Your task to perform on an android device: Open Youtube and go to the subscriptions tab Image 0: 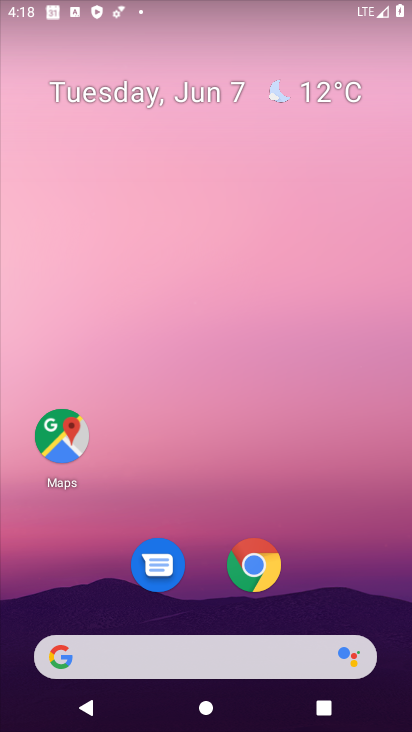
Step 0: drag from (307, 504) to (269, 56)
Your task to perform on an android device: Open Youtube and go to the subscriptions tab Image 1: 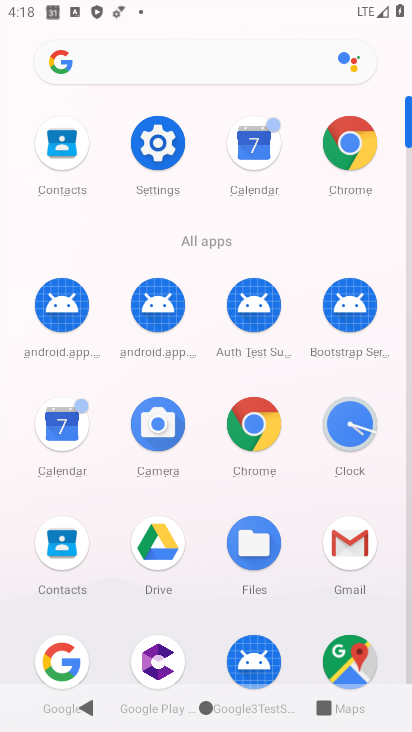
Step 1: drag from (310, 588) to (252, 141)
Your task to perform on an android device: Open Youtube and go to the subscriptions tab Image 2: 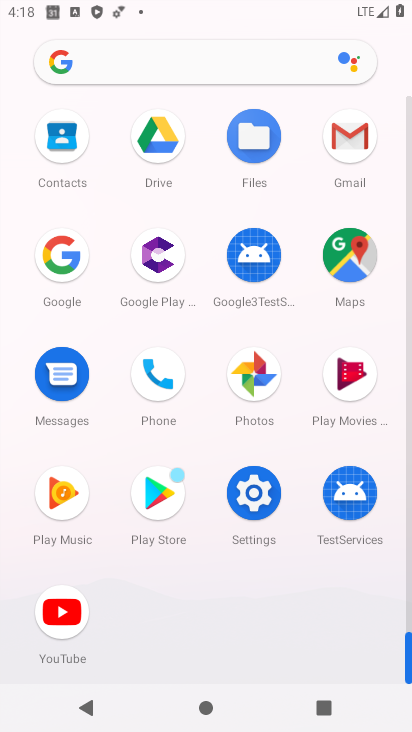
Step 2: click (65, 618)
Your task to perform on an android device: Open Youtube and go to the subscriptions tab Image 3: 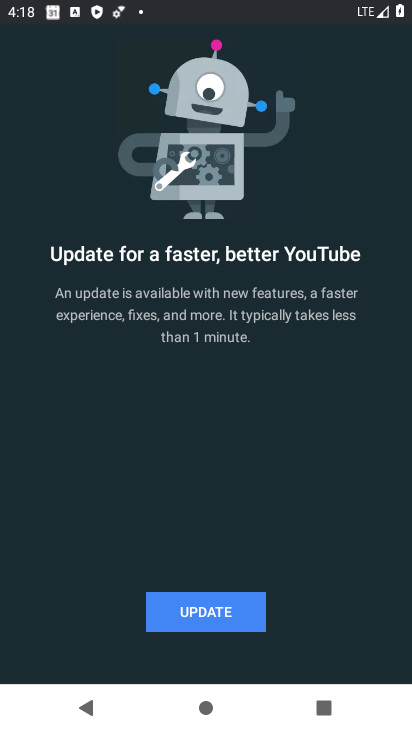
Step 3: click (221, 623)
Your task to perform on an android device: Open Youtube and go to the subscriptions tab Image 4: 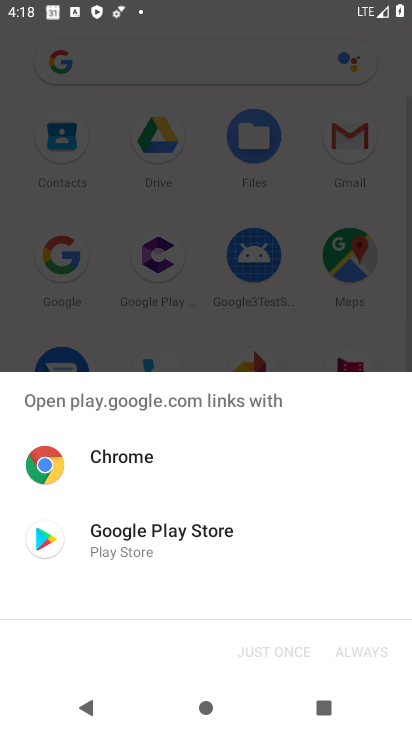
Step 4: click (158, 552)
Your task to perform on an android device: Open Youtube and go to the subscriptions tab Image 5: 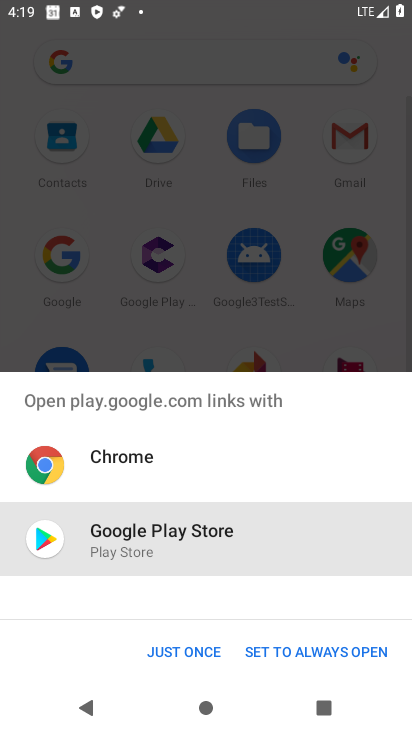
Step 5: drag from (176, 651) to (234, 651)
Your task to perform on an android device: Open Youtube and go to the subscriptions tab Image 6: 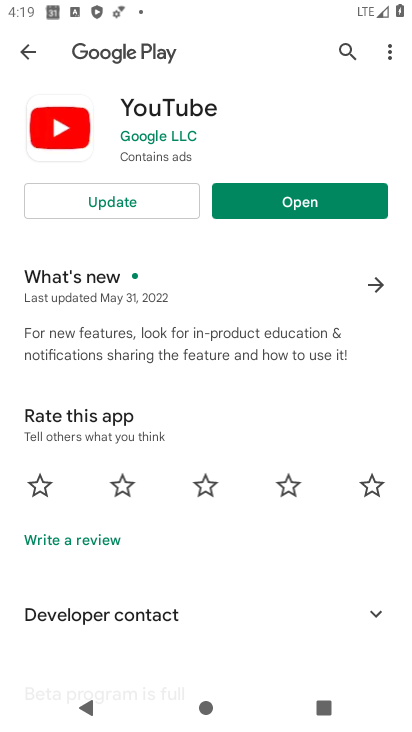
Step 6: click (129, 190)
Your task to perform on an android device: Open Youtube and go to the subscriptions tab Image 7: 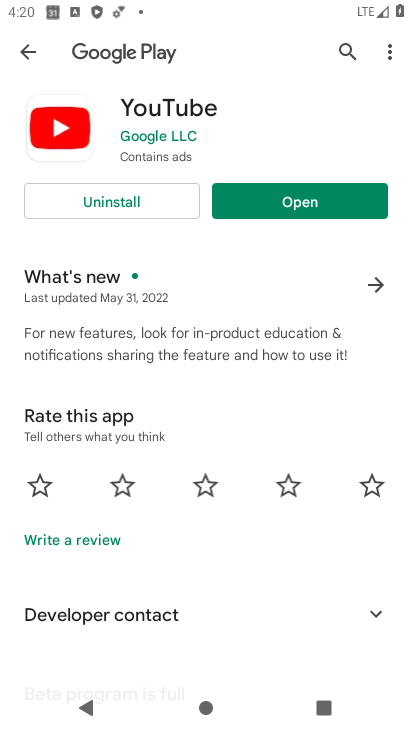
Step 7: click (305, 200)
Your task to perform on an android device: Open Youtube and go to the subscriptions tab Image 8: 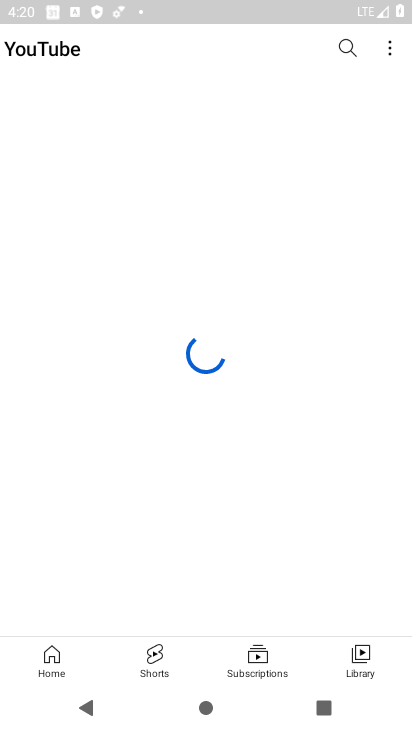
Step 8: click (256, 666)
Your task to perform on an android device: Open Youtube and go to the subscriptions tab Image 9: 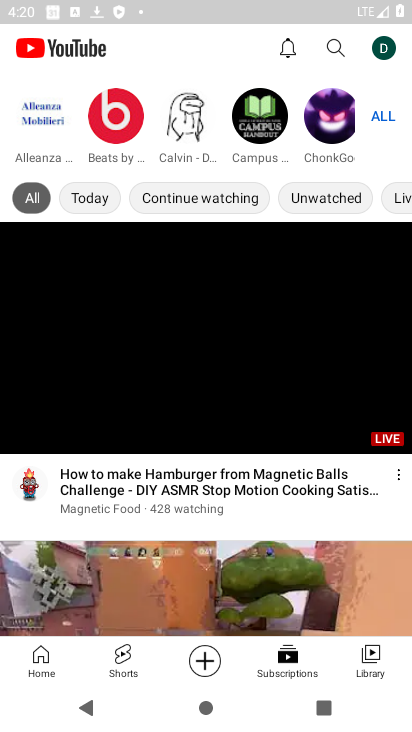
Step 9: task complete